Your task to perform on an android device: check the backup settings in the google photos Image 0: 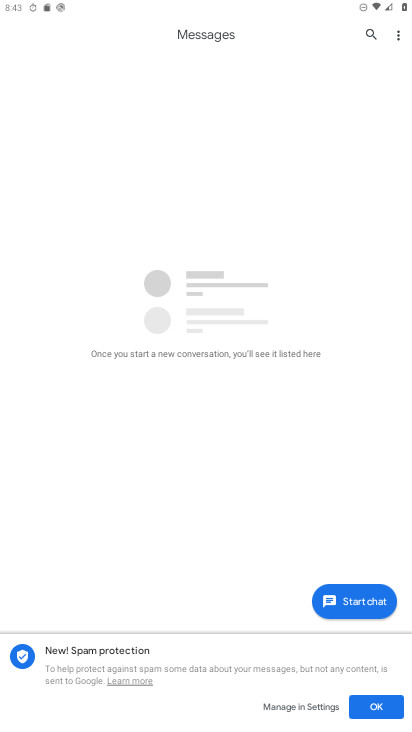
Step 0: press home button
Your task to perform on an android device: check the backup settings in the google photos Image 1: 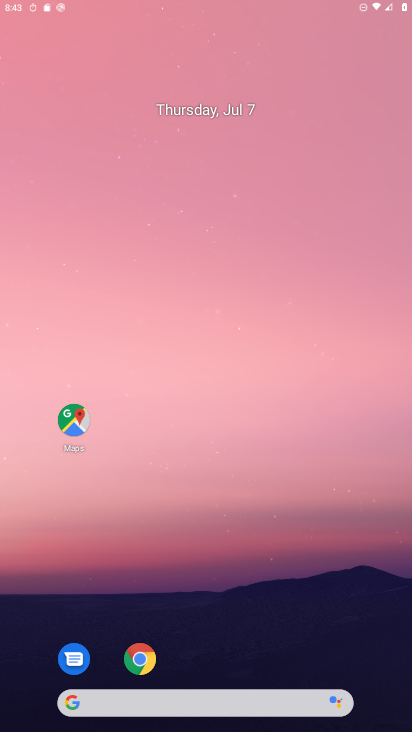
Step 1: drag from (405, 671) to (217, 8)
Your task to perform on an android device: check the backup settings in the google photos Image 2: 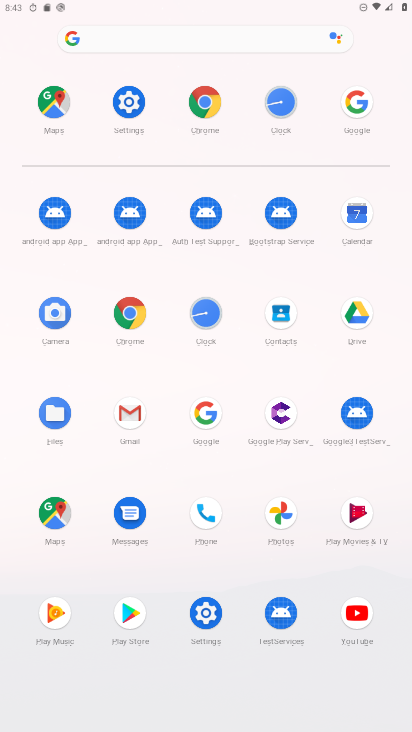
Step 2: click (266, 517)
Your task to perform on an android device: check the backup settings in the google photos Image 3: 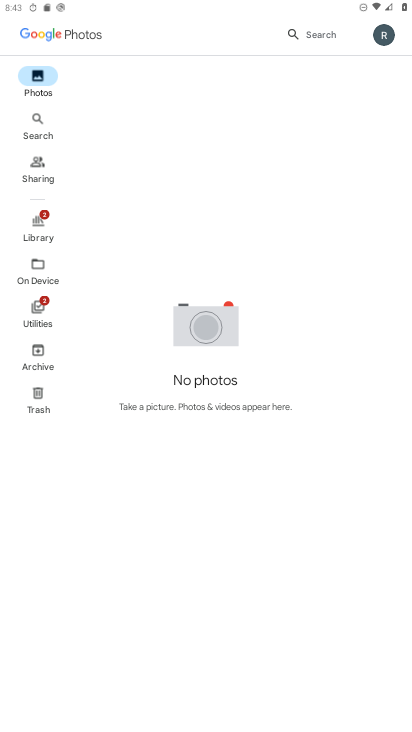
Step 3: click (379, 42)
Your task to perform on an android device: check the backup settings in the google photos Image 4: 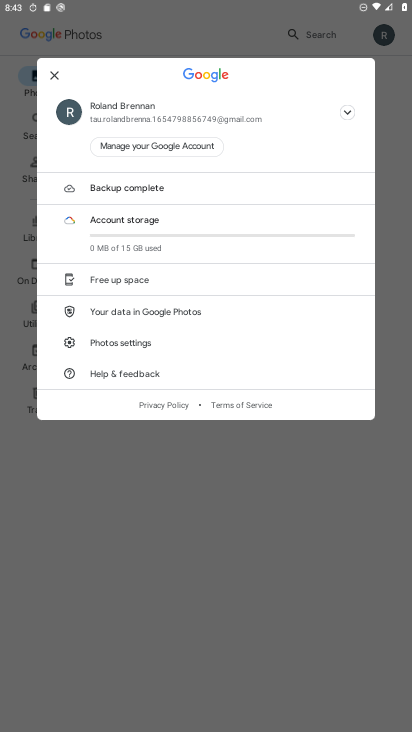
Step 4: click (109, 186)
Your task to perform on an android device: check the backup settings in the google photos Image 5: 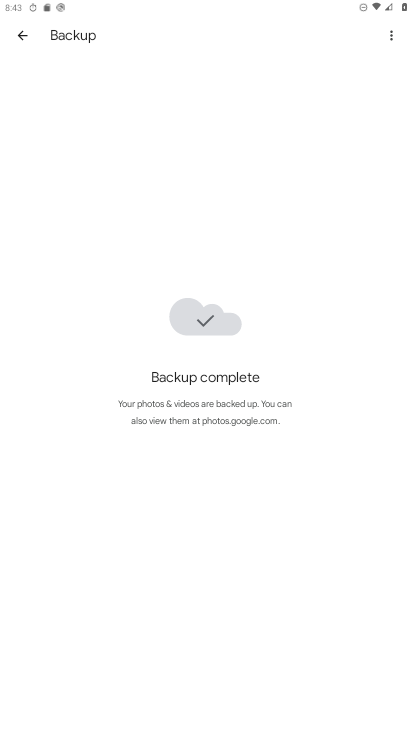
Step 5: task complete